Your task to perform on an android device: Go to display settings Image 0: 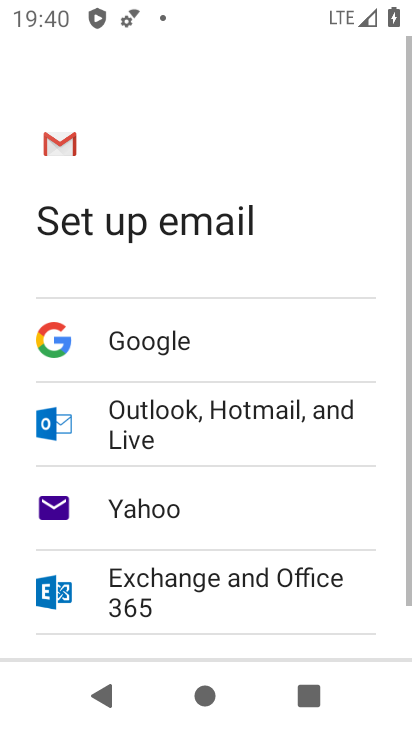
Step 0: press home button
Your task to perform on an android device: Go to display settings Image 1: 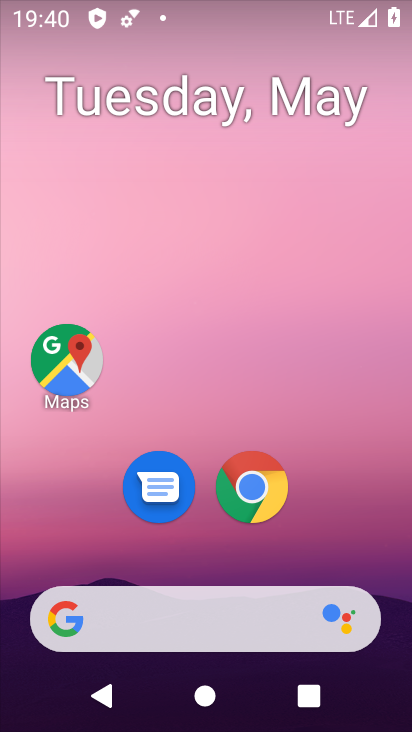
Step 1: drag from (331, 536) to (193, 19)
Your task to perform on an android device: Go to display settings Image 2: 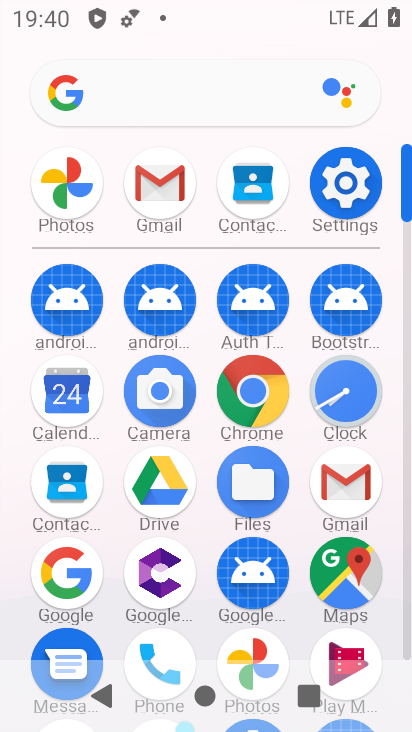
Step 2: click (337, 173)
Your task to perform on an android device: Go to display settings Image 3: 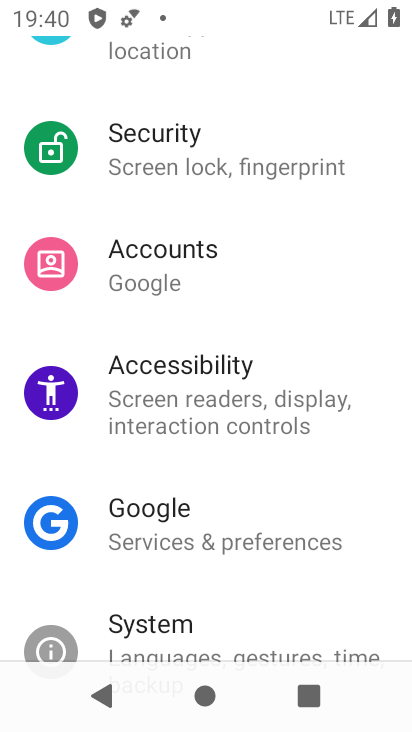
Step 3: drag from (212, 198) to (282, 616)
Your task to perform on an android device: Go to display settings Image 4: 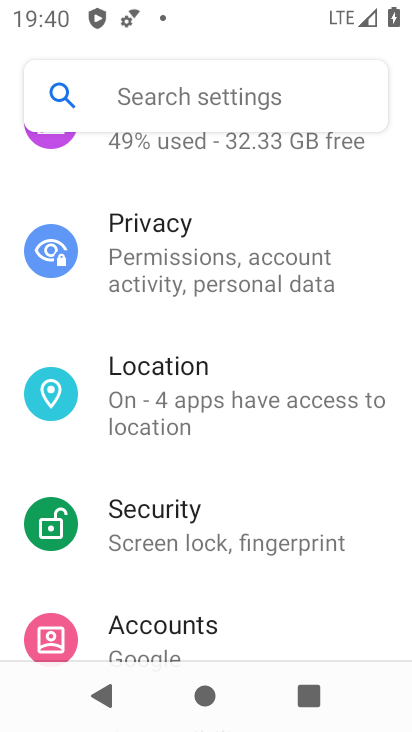
Step 4: drag from (256, 344) to (303, 701)
Your task to perform on an android device: Go to display settings Image 5: 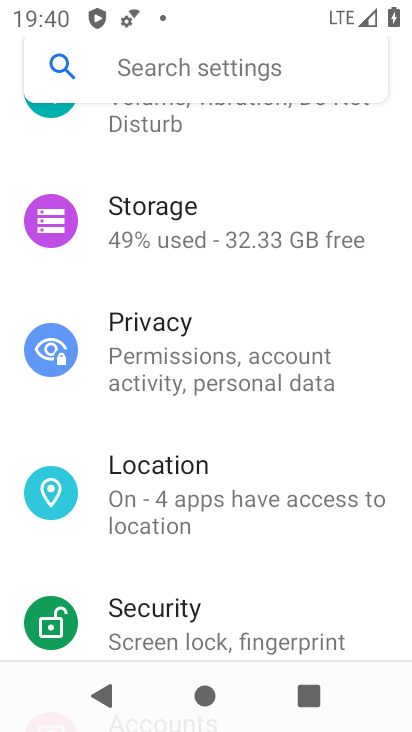
Step 5: drag from (214, 275) to (238, 661)
Your task to perform on an android device: Go to display settings Image 6: 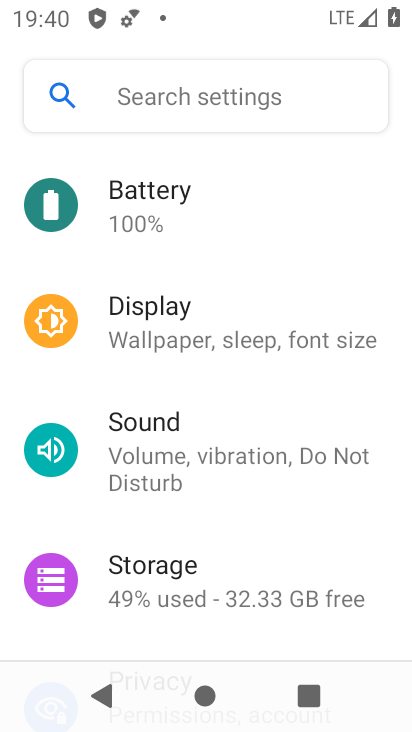
Step 6: click (155, 294)
Your task to perform on an android device: Go to display settings Image 7: 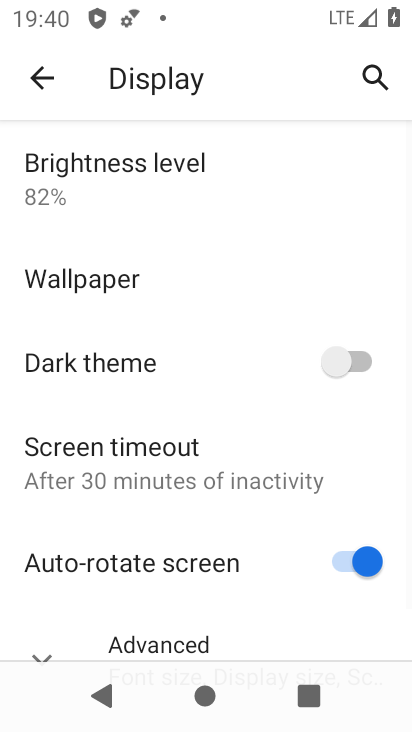
Step 7: task complete